Your task to perform on an android device: What's on my calendar tomorrow? Image 0: 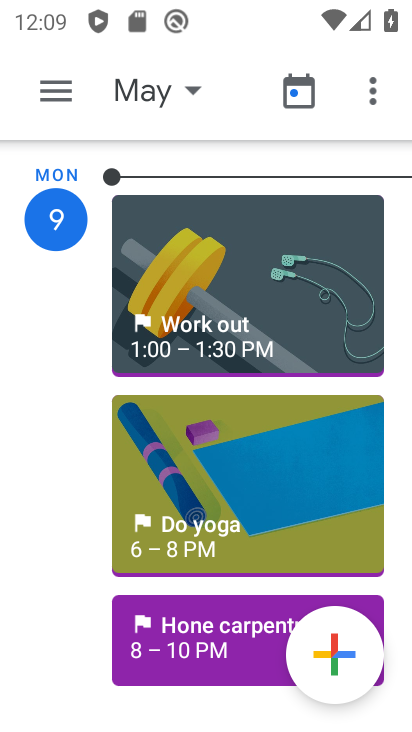
Step 0: click (51, 92)
Your task to perform on an android device: What's on my calendar tomorrow? Image 1: 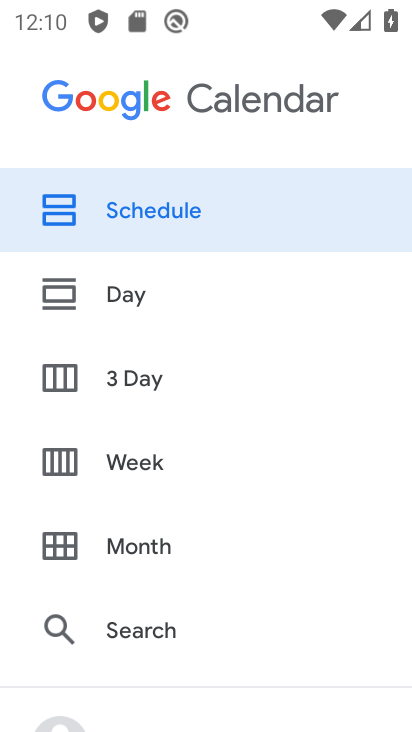
Step 1: click (166, 549)
Your task to perform on an android device: What's on my calendar tomorrow? Image 2: 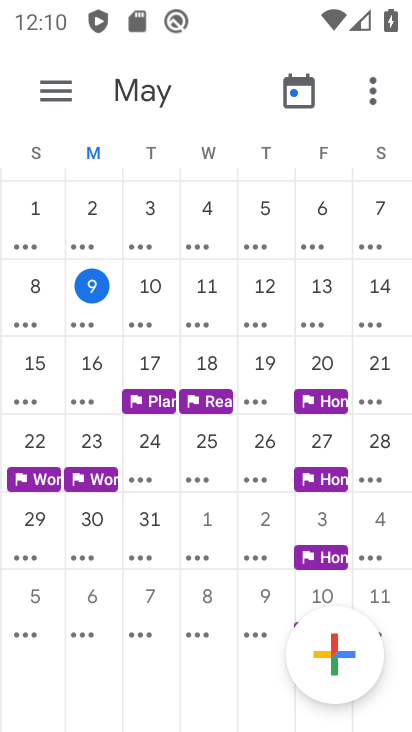
Step 2: click (329, 524)
Your task to perform on an android device: What's on my calendar tomorrow? Image 3: 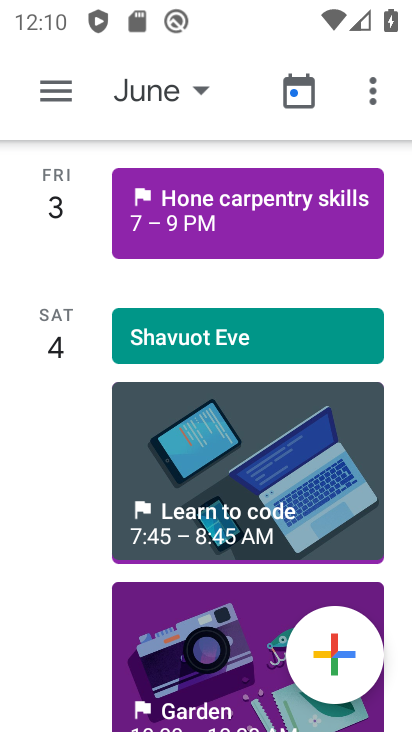
Step 3: click (44, 86)
Your task to perform on an android device: What's on my calendar tomorrow? Image 4: 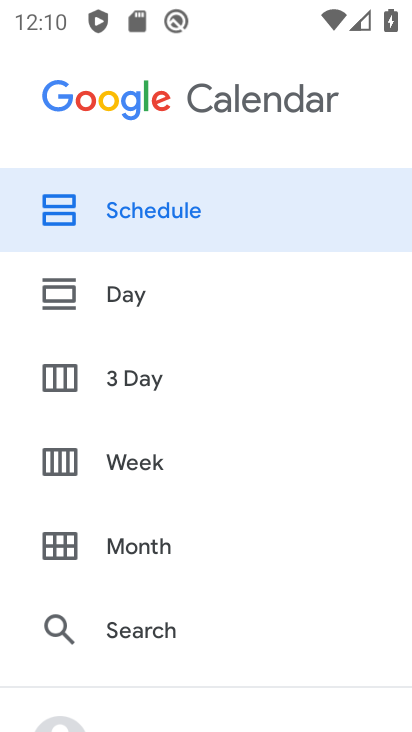
Step 4: click (182, 546)
Your task to perform on an android device: What's on my calendar tomorrow? Image 5: 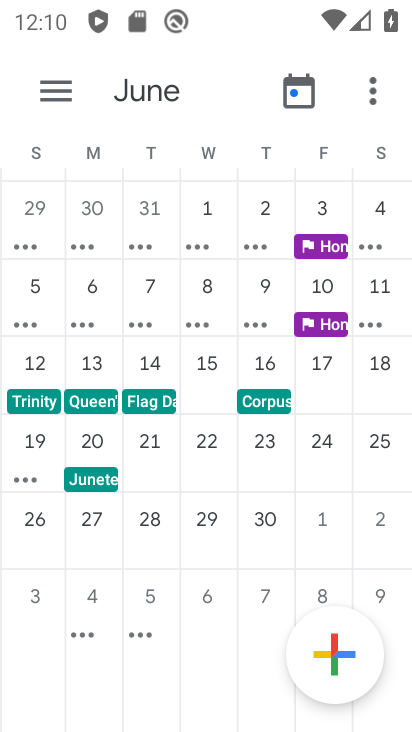
Step 5: drag from (69, 291) to (408, 340)
Your task to perform on an android device: What's on my calendar tomorrow? Image 6: 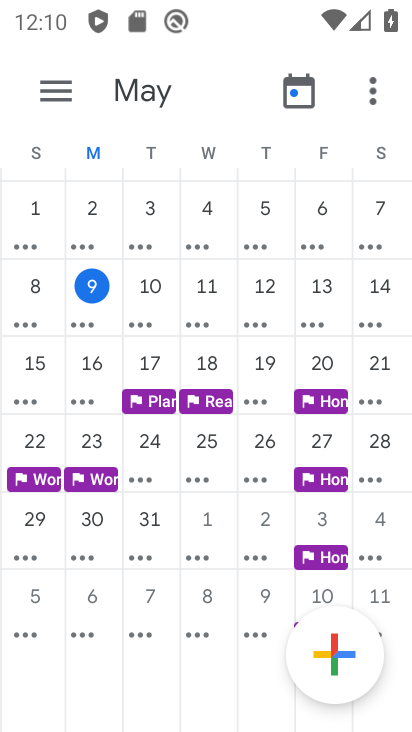
Step 6: click (145, 272)
Your task to perform on an android device: What's on my calendar tomorrow? Image 7: 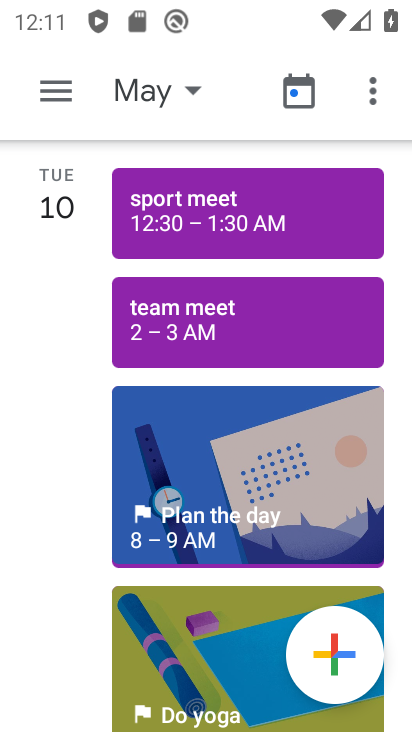
Step 7: task complete